Your task to perform on an android device: Set the phone to "Do not disturb". Image 0: 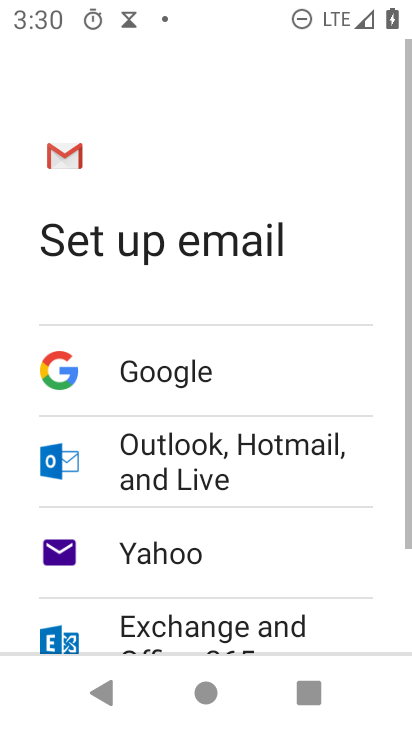
Step 0: press home button
Your task to perform on an android device: Set the phone to "Do not disturb". Image 1: 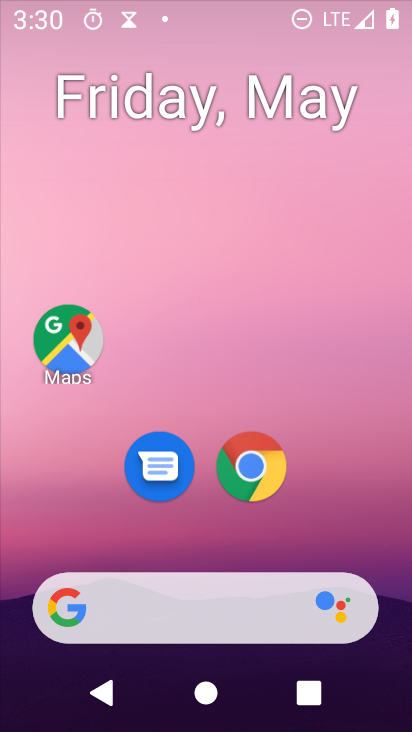
Step 1: drag from (315, 520) to (365, 9)
Your task to perform on an android device: Set the phone to "Do not disturb". Image 2: 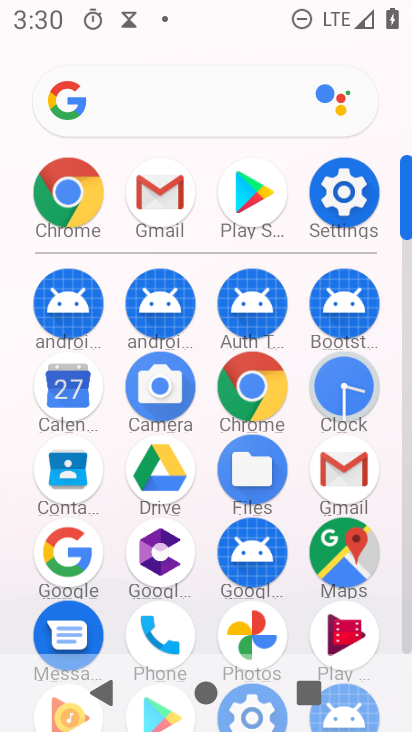
Step 2: click (354, 189)
Your task to perform on an android device: Set the phone to "Do not disturb". Image 3: 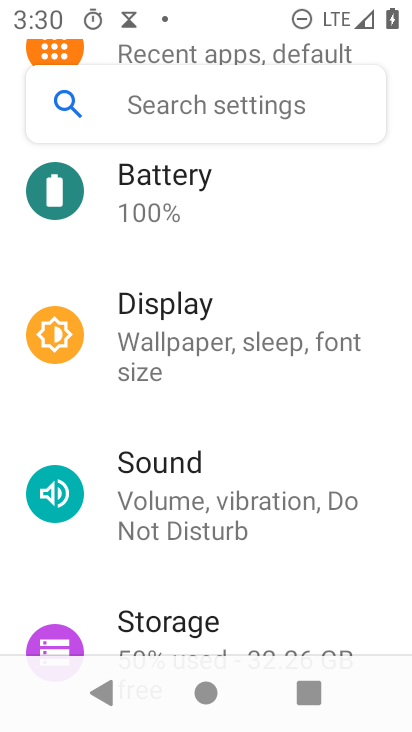
Step 3: click (181, 492)
Your task to perform on an android device: Set the phone to "Do not disturb". Image 4: 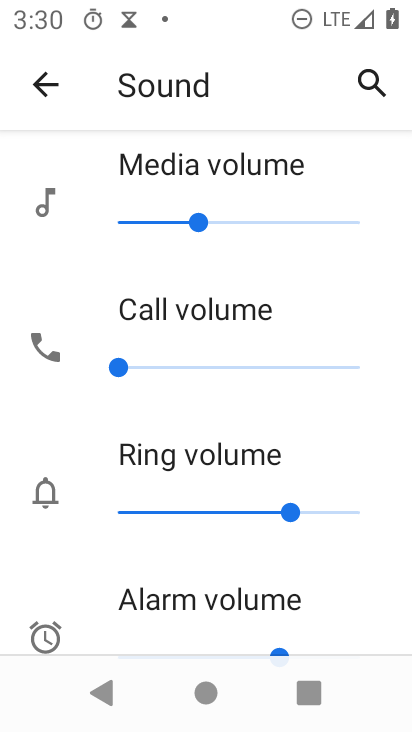
Step 4: drag from (168, 540) to (193, 129)
Your task to perform on an android device: Set the phone to "Do not disturb". Image 5: 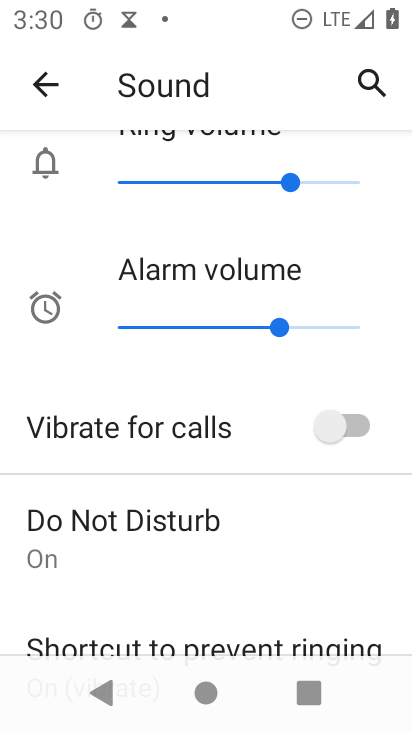
Step 5: drag from (167, 578) to (255, 61)
Your task to perform on an android device: Set the phone to "Do not disturb". Image 6: 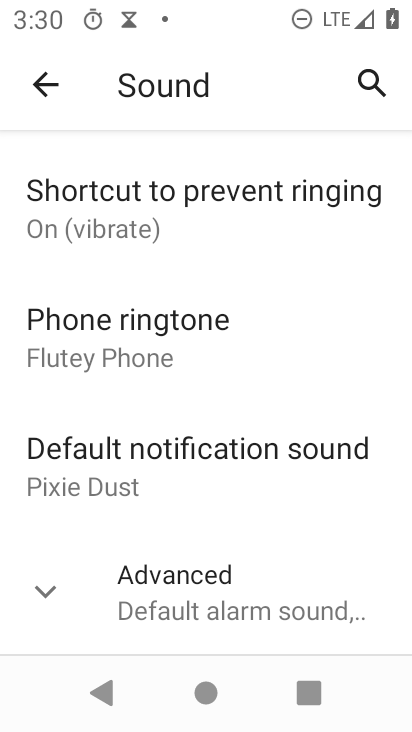
Step 6: drag from (212, 146) to (225, 580)
Your task to perform on an android device: Set the phone to "Do not disturb". Image 7: 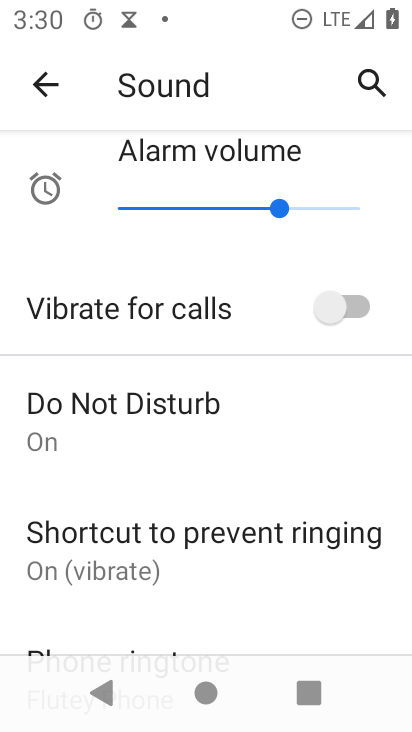
Step 7: click (108, 430)
Your task to perform on an android device: Set the phone to "Do not disturb". Image 8: 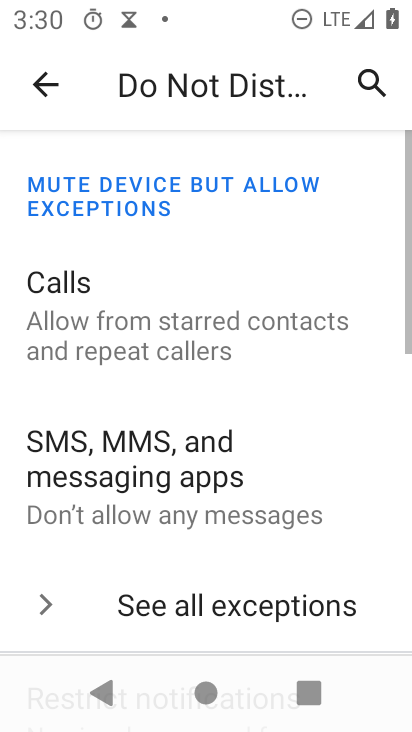
Step 8: task complete